Your task to perform on an android device: Turn on the flashlight Image 0: 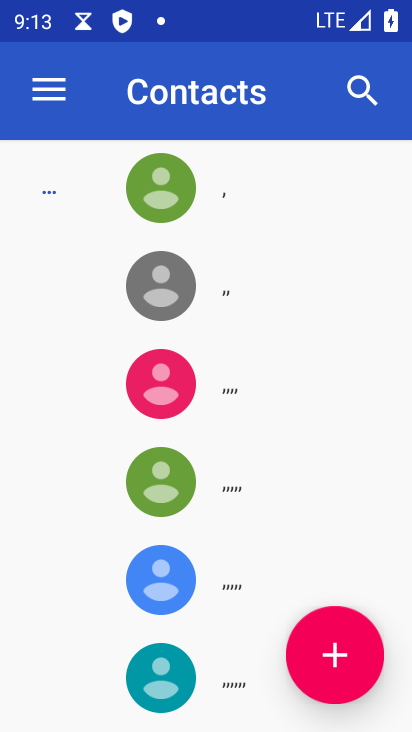
Step 0: press back button
Your task to perform on an android device: Turn on the flashlight Image 1: 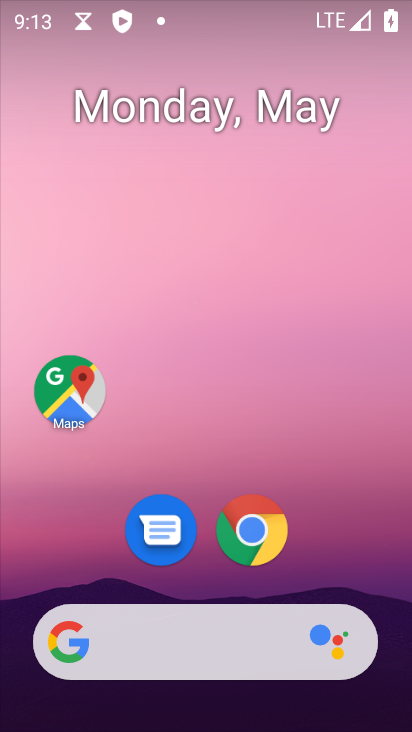
Step 1: drag from (335, 554) to (240, 16)
Your task to perform on an android device: Turn on the flashlight Image 2: 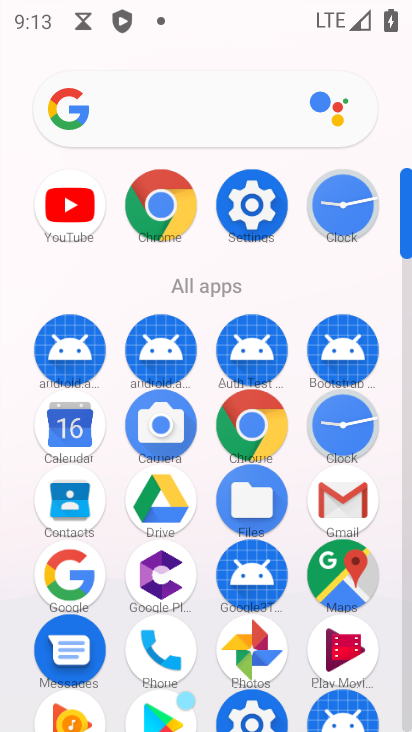
Step 2: drag from (18, 587) to (24, 289)
Your task to perform on an android device: Turn on the flashlight Image 3: 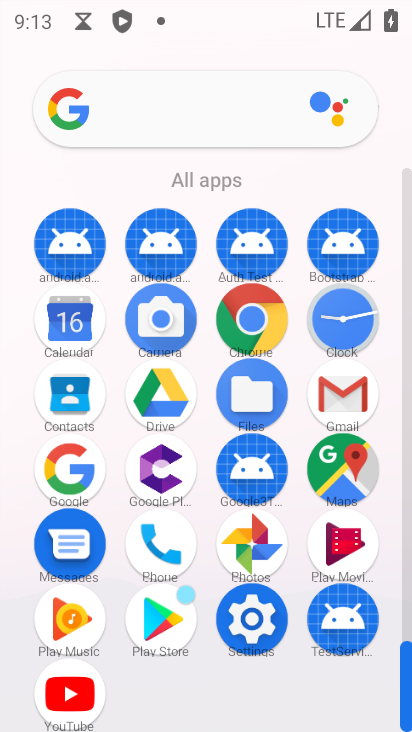
Step 3: click (249, 616)
Your task to perform on an android device: Turn on the flashlight Image 4: 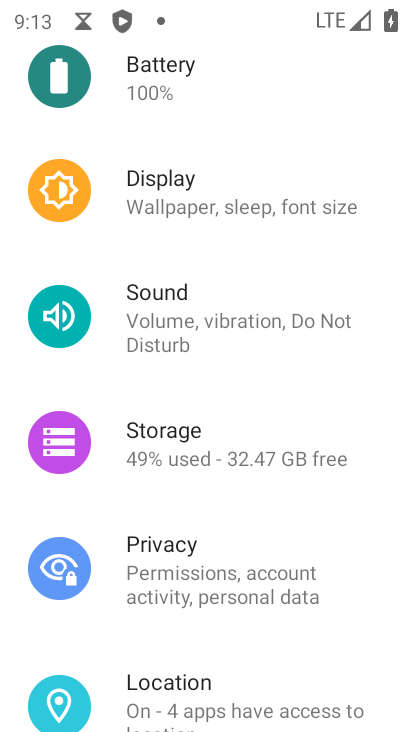
Step 4: drag from (273, 187) to (287, 597)
Your task to perform on an android device: Turn on the flashlight Image 5: 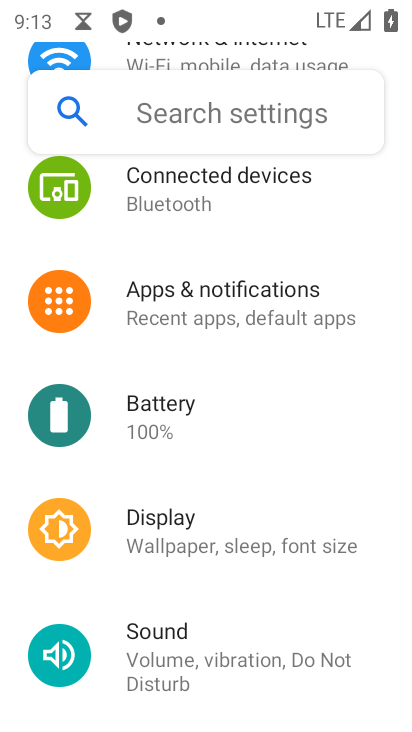
Step 5: drag from (283, 310) to (276, 600)
Your task to perform on an android device: Turn on the flashlight Image 6: 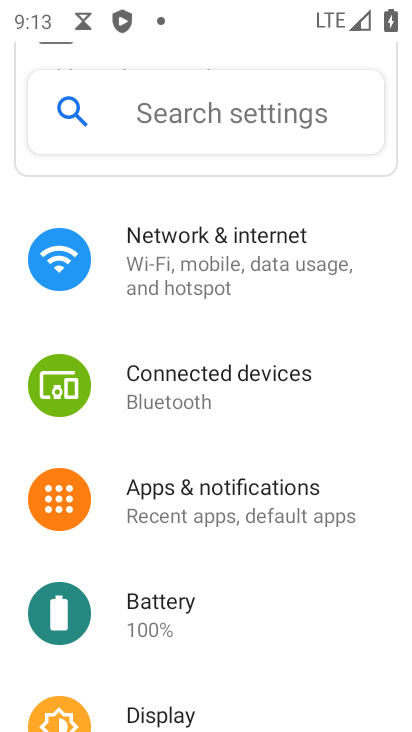
Step 6: click (278, 248)
Your task to perform on an android device: Turn on the flashlight Image 7: 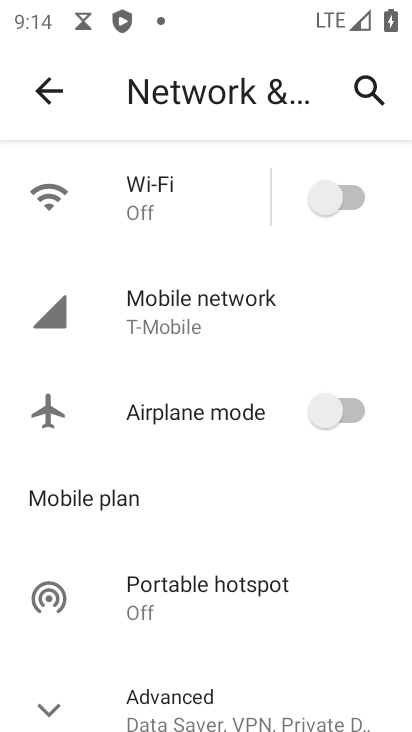
Step 7: click (48, 694)
Your task to perform on an android device: Turn on the flashlight Image 8: 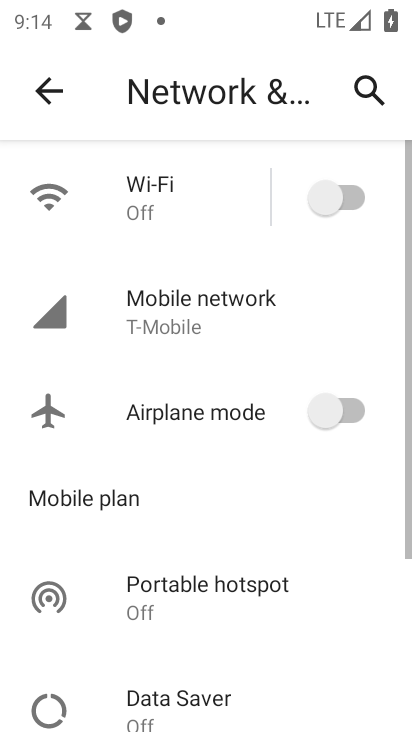
Step 8: task complete